Your task to perform on an android device: Go to sound settings Image 0: 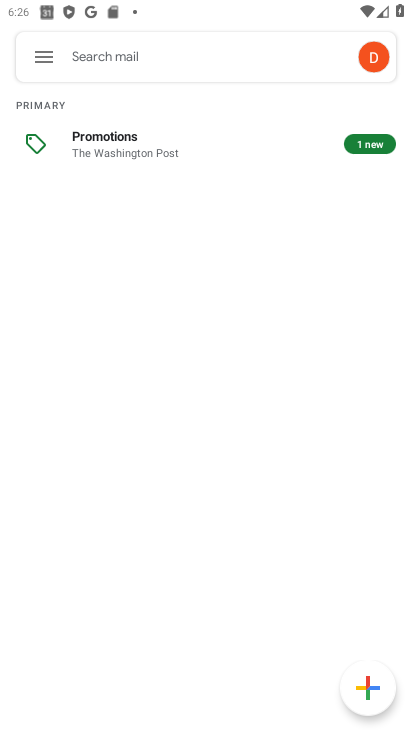
Step 0: press home button
Your task to perform on an android device: Go to sound settings Image 1: 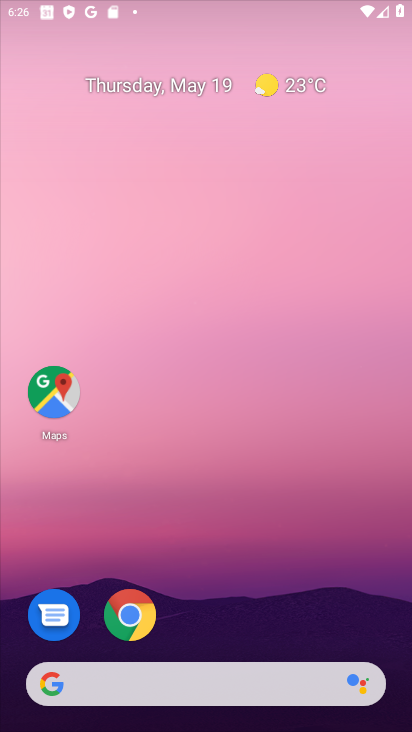
Step 1: drag from (333, 618) to (331, 91)
Your task to perform on an android device: Go to sound settings Image 2: 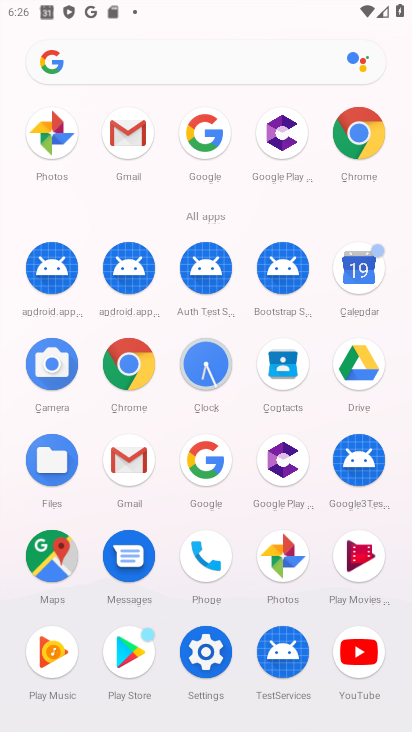
Step 2: click (200, 666)
Your task to perform on an android device: Go to sound settings Image 3: 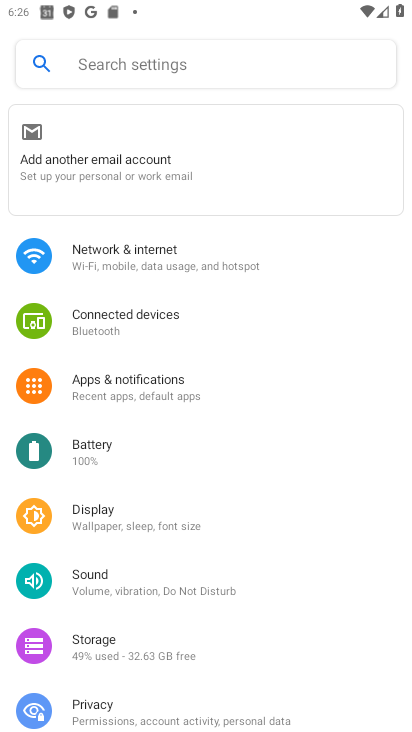
Step 3: click (117, 583)
Your task to perform on an android device: Go to sound settings Image 4: 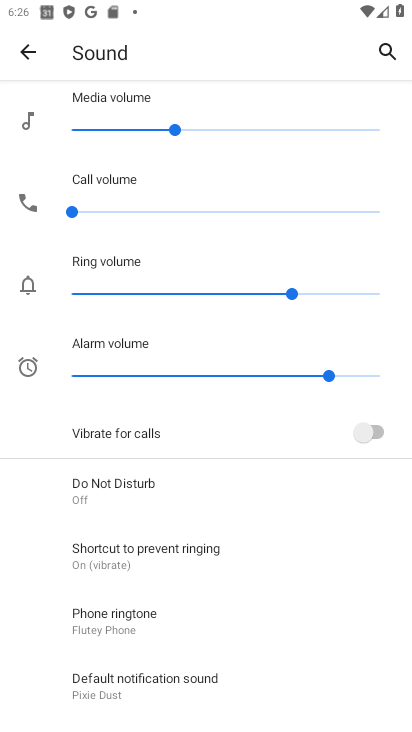
Step 4: task complete